Your task to perform on an android device: open chrome and create a bookmark for the current page Image 0: 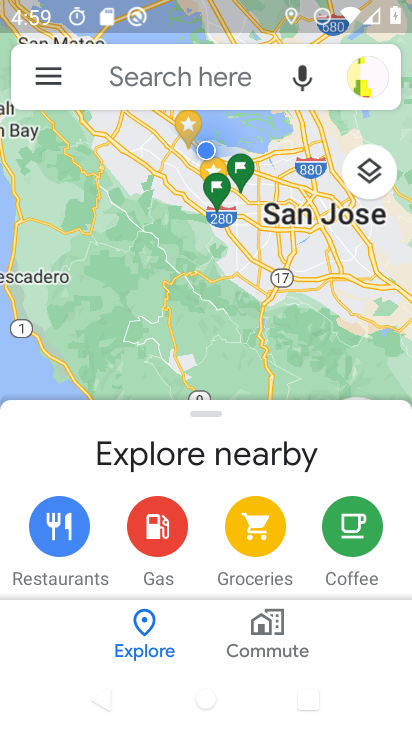
Step 0: press back button
Your task to perform on an android device: open chrome and create a bookmark for the current page Image 1: 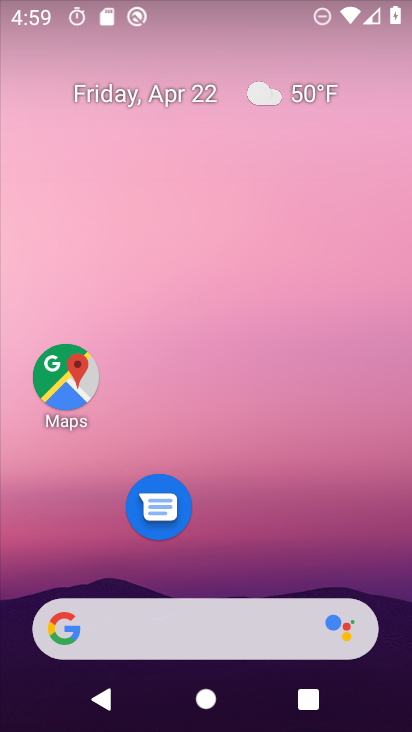
Step 1: drag from (252, 589) to (343, 99)
Your task to perform on an android device: open chrome and create a bookmark for the current page Image 2: 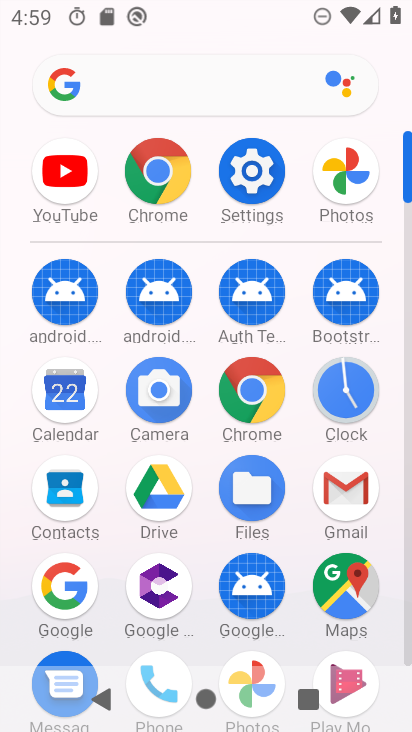
Step 2: click (161, 179)
Your task to perform on an android device: open chrome and create a bookmark for the current page Image 3: 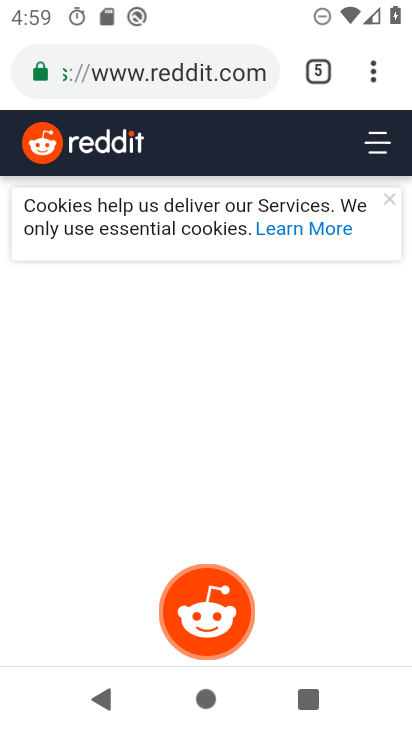
Step 3: drag from (372, 67) to (130, 228)
Your task to perform on an android device: open chrome and create a bookmark for the current page Image 4: 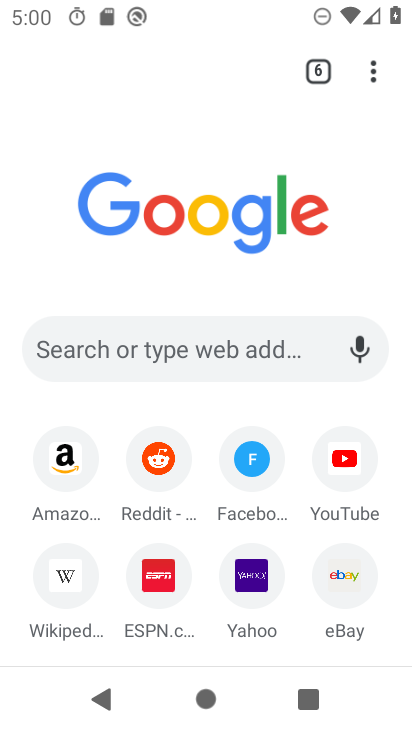
Step 4: click (166, 344)
Your task to perform on an android device: open chrome and create a bookmark for the current page Image 5: 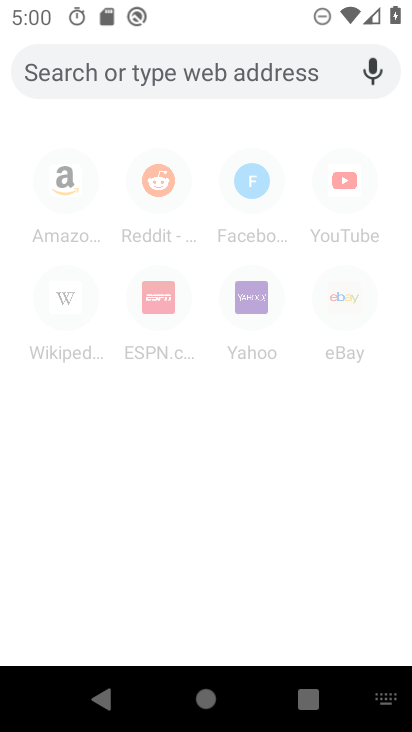
Step 5: type "tesla"
Your task to perform on an android device: open chrome and create a bookmark for the current page Image 6: 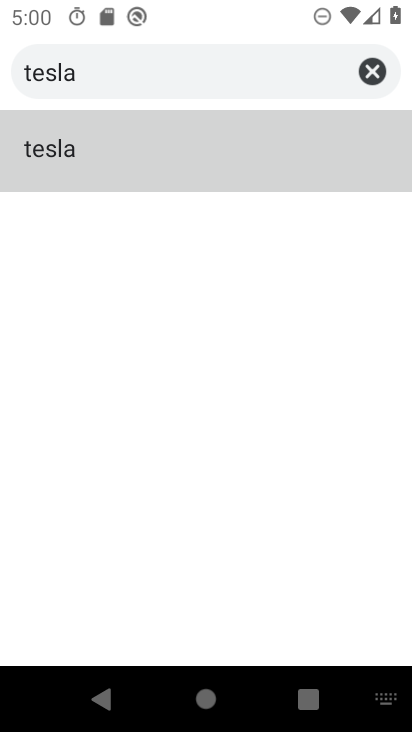
Step 6: click (98, 161)
Your task to perform on an android device: open chrome and create a bookmark for the current page Image 7: 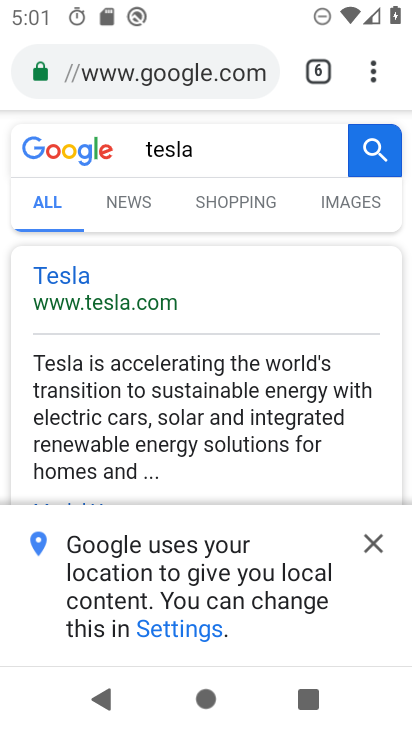
Step 7: task complete